Your task to perform on an android device: Open Youtube and go to the subscriptions tab Image 0: 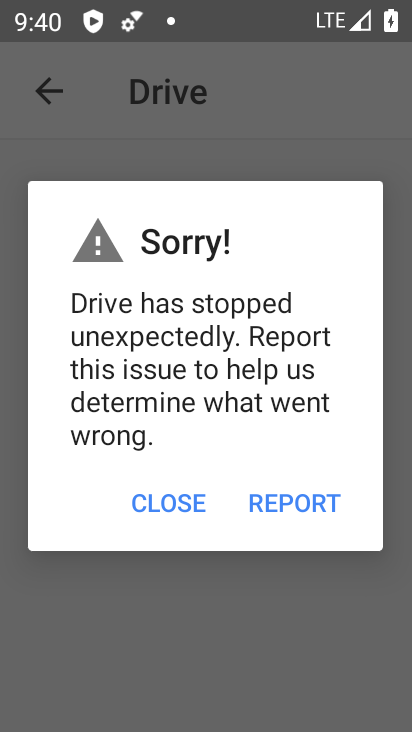
Step 0: click (187, 493)
Your task to perform on an android device: Open Youtube and go to the subscriptions tab Image 1: 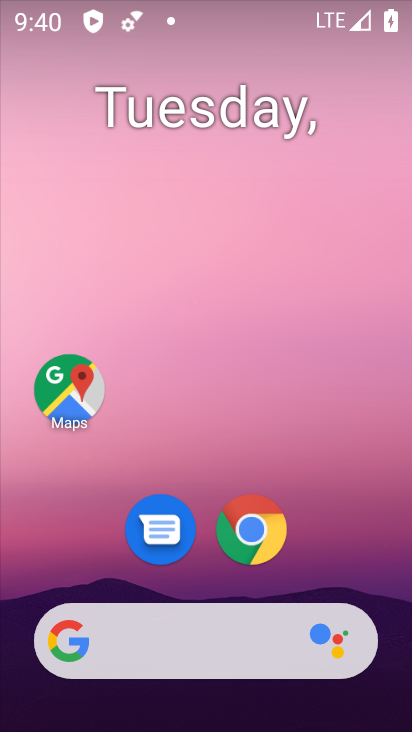
Step 1: drag from (355, 537) to (250, 27)
Your task to perform on an android device: Open Youtube and go to the subscriptions tab Image 2: 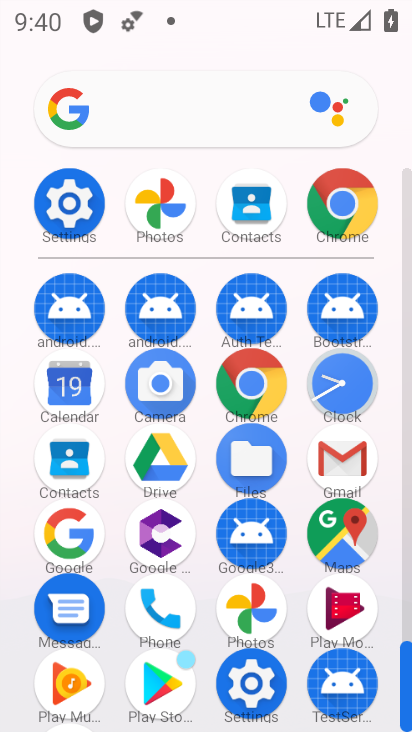
Step 2: drag from (299, 574) to (371, 252)
Your task to perform on an android device: Open Youtube and go to the subscriptions tab Image 3: 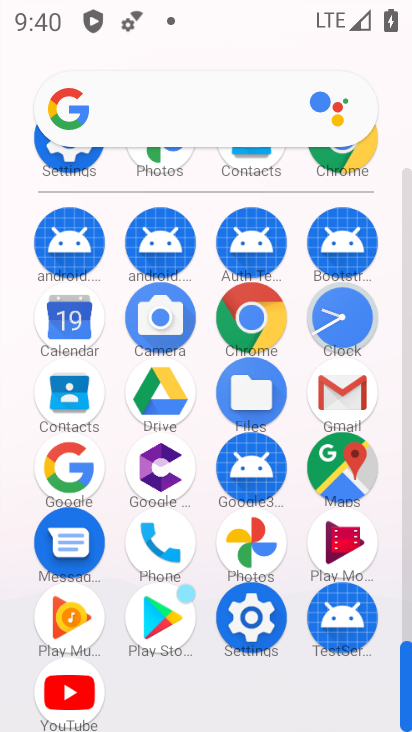
Step 3: click (66, 674)
Your task to perform on an android device: Open Youtube and go to the subscriptions tab Image 4: 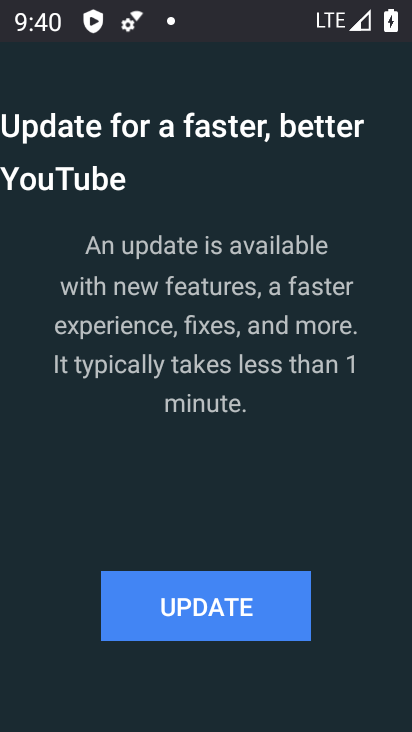
Step 4: click (251, 385)
Your task to perform on an android device: Open Youtube and go to the subscriptions tab Image 5: 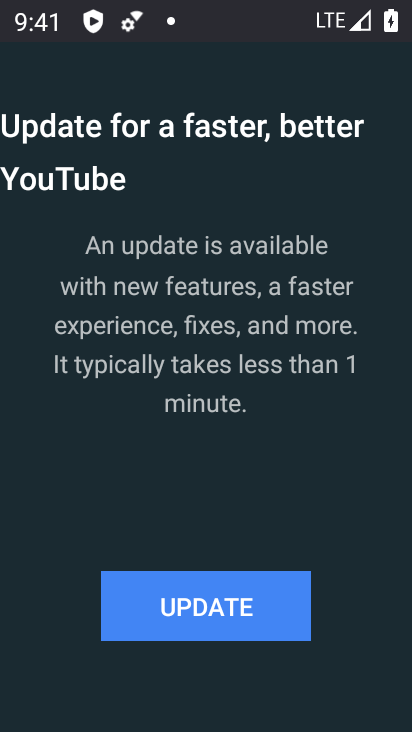
Step 5: click (216, 604)
Your task to perform on an android device: Open Youtube and go to the subscriptions tab Image 6: 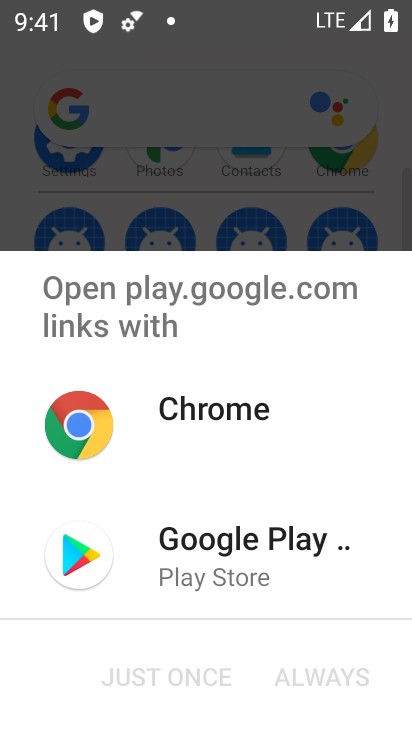
Step 6: click (242, 556)
Your task to perform on an android device: Open Youtube and go to the subscriptions tab Image 7: 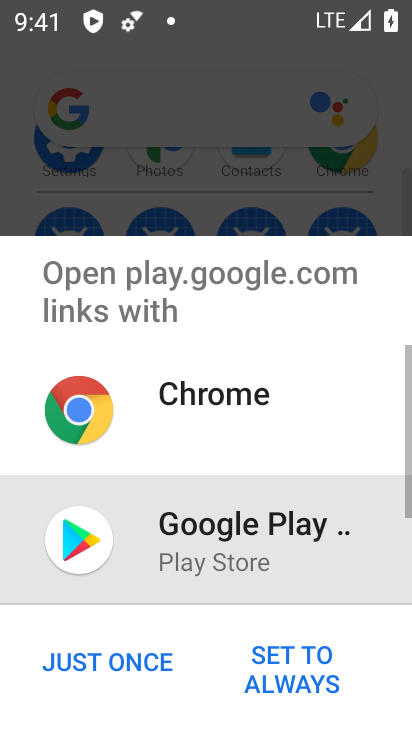
Step 7: click (160, 655)
Your task to perform on an android device: Open Youtube and go to the subscriptions tab Image 8: 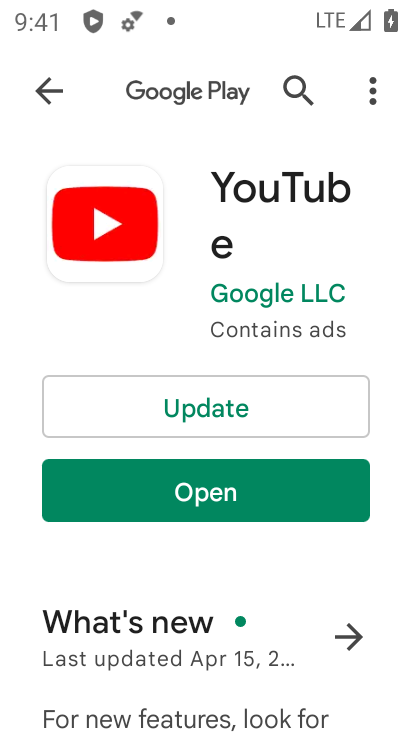
Step 8: click (219, 417)
Your task to perform on an android device: Open Youtube and go to the subscriptions tab Image 9: 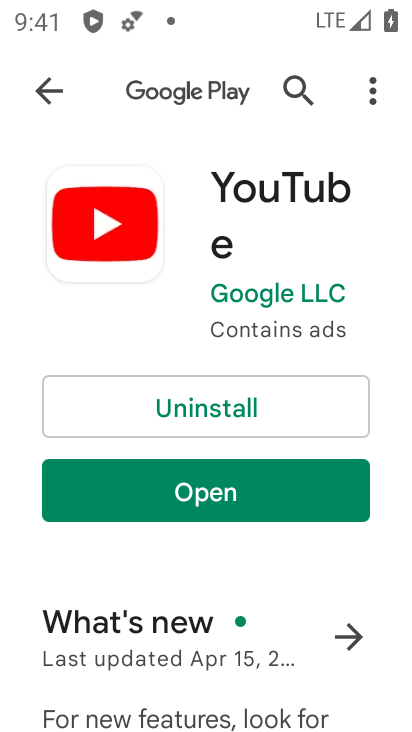
Step 9: click (221, 493)
Your task to perform on an android device: Open Youtube and go to the subscriptions tab Image 10: 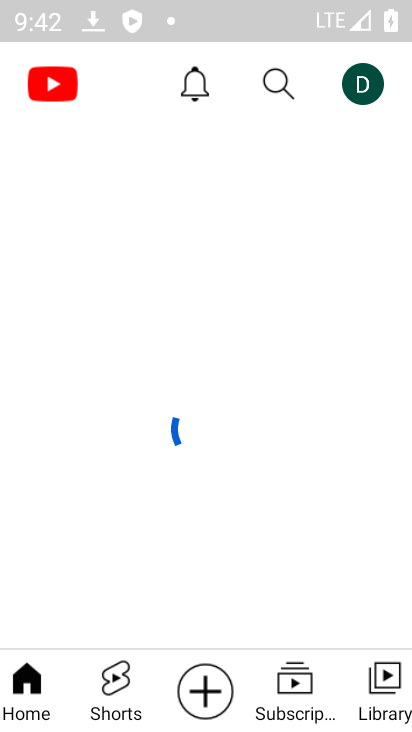
Step 10: click (286, 692)
Your task to perform on an android device: Open Youtube and go to the subscriptions tab Image 11: 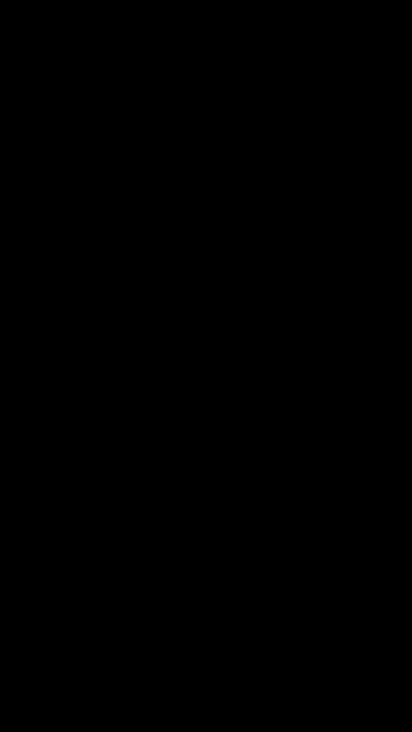
Step 11: task complete